Your task to perform on an android device: Open maps Image 0: 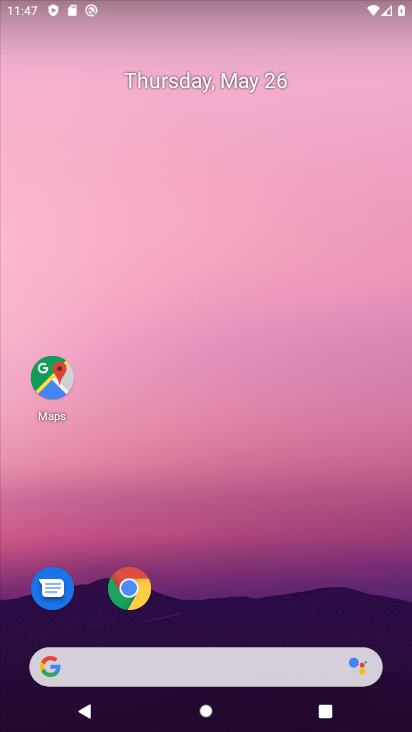
Step 0: click (49, 390)
Your task to perform on an android device: Open maps Image 1: 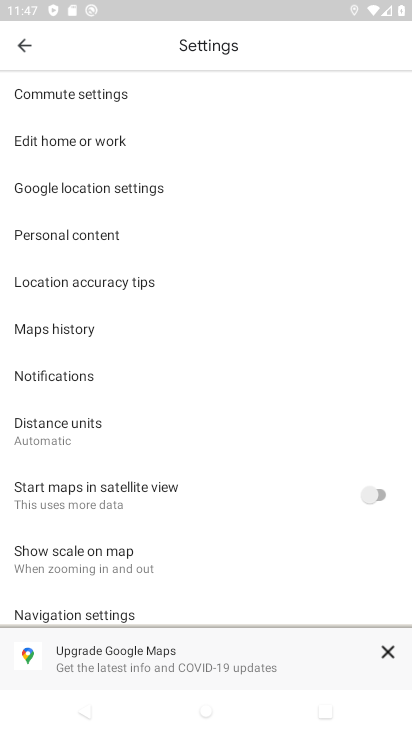
Step 1: click (22, 49)
Your task to perform on an android device: Open maps Image 2: 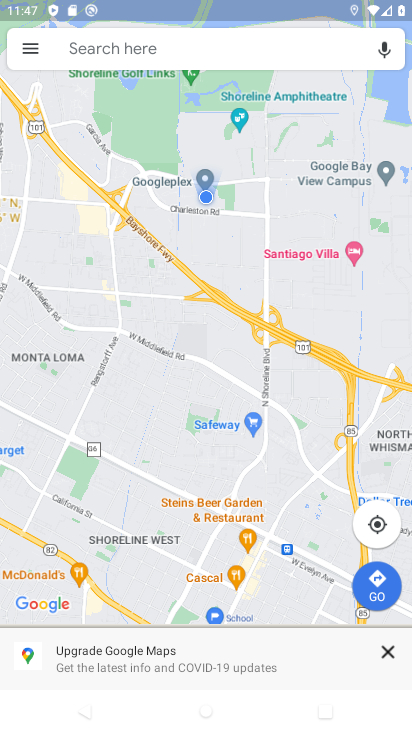
Step 2: task complete